Your task to perform on an android device: toggle airplane mode Image 0: 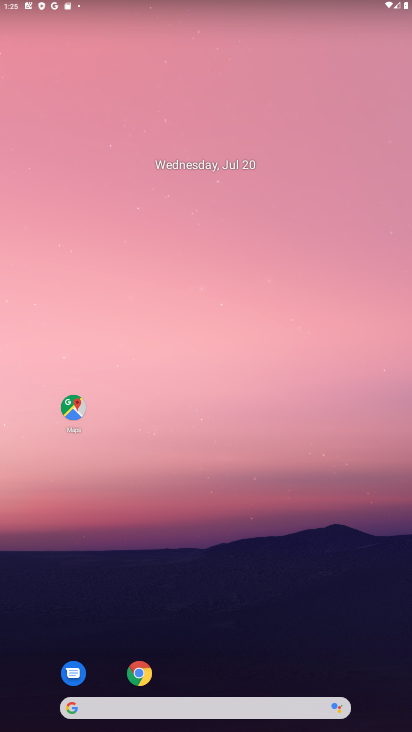
Step 0: click (257, 666)
Your task to perform on an android device: toggle airplane mode Image 1: 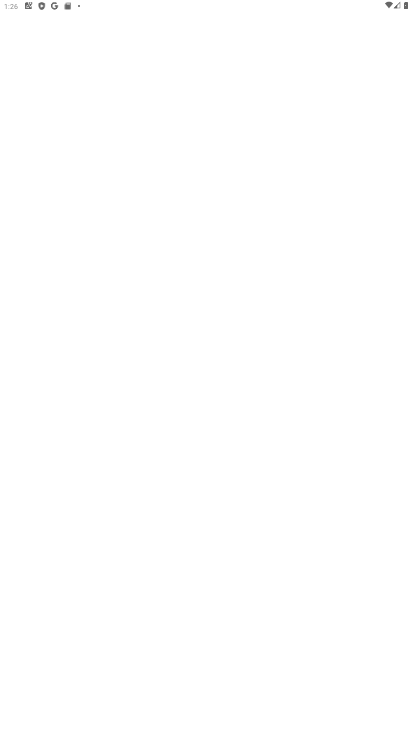
Step 1: drag from (257, 666) to (195, 193)
Your task to perform on an android device: toggle airplane mode Image 2: 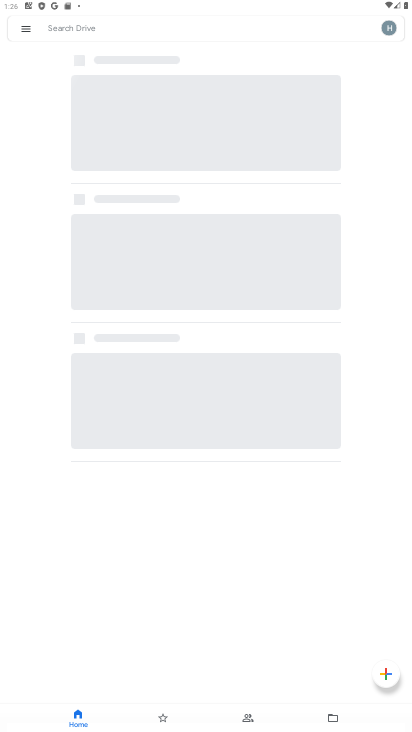
Step 2: press home button
Your task to perform on an android device: toggle airplane mode Image 3: 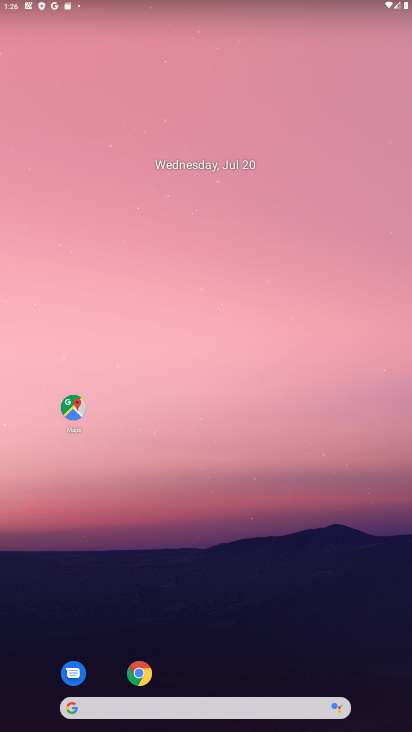
Step 3: drag from (300, 656) to (219, 287)
Your task to perform on an android device: toggle airplane mode Image 4: 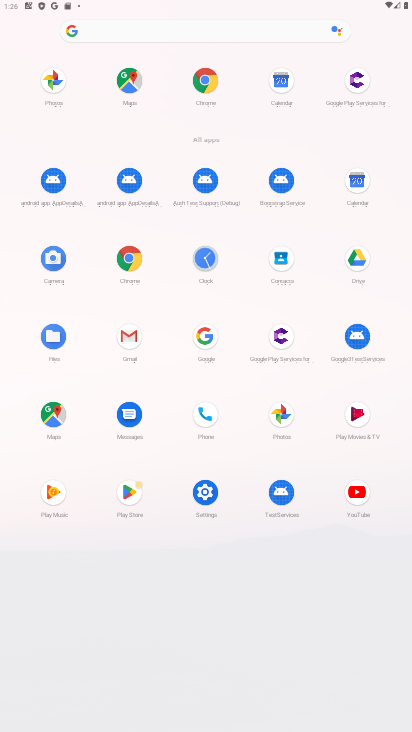
Step 4: click (203, 491)
Your task to perform on an android device: toggle airplane mode Image 5: 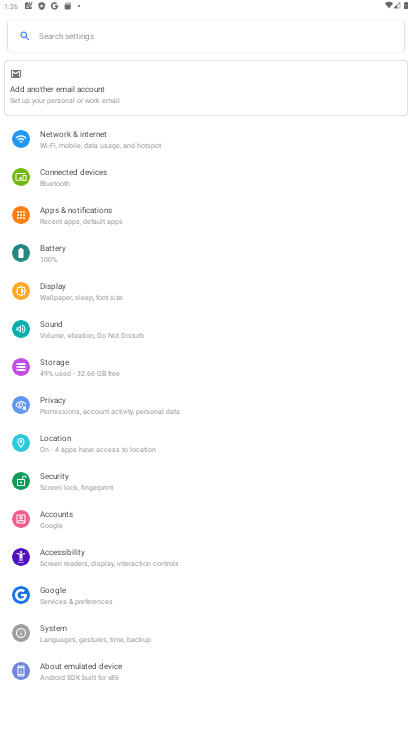
Step 5: click (189, 131)
Your task to perform on an android device: toggle airplane mode Image 6: 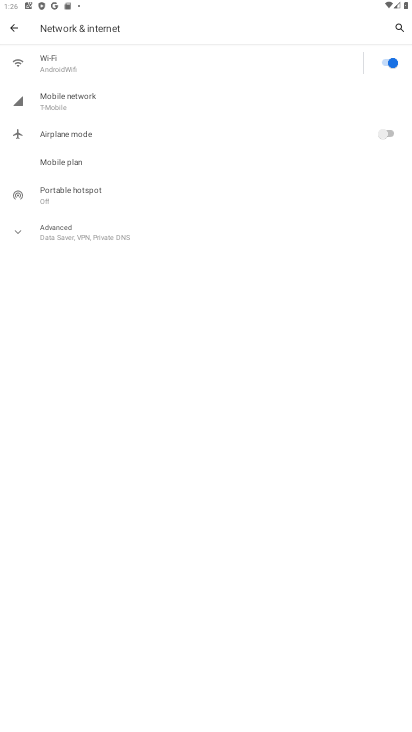
Step 6: click (391, 134)
Your task to perform on an android device: toggle airplane mode Image 7: 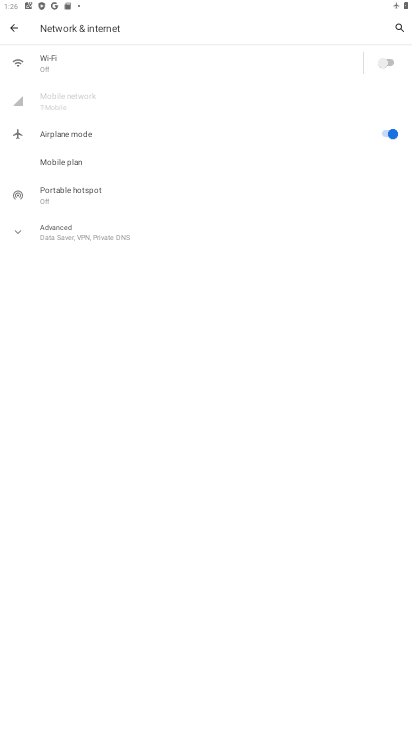
Step 7: task complete